Your task to perform on an android device: open app "DoorDash - Dasher" Image 0: 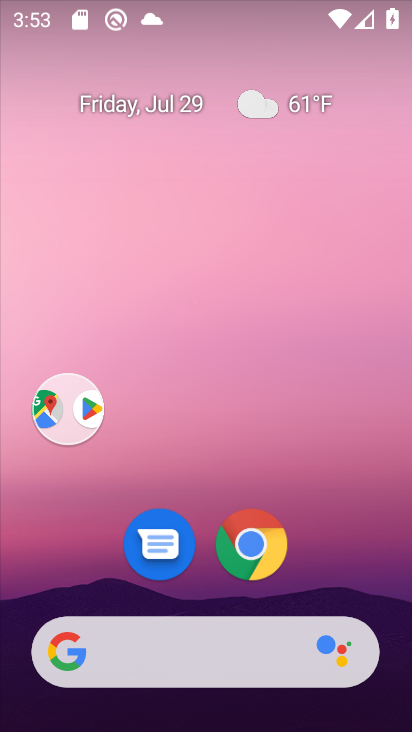
Step 0: drag from (211, 697) to (205, 331)
Your task to perform on an android device: open app "DoorDash - Dasher" Image 1: 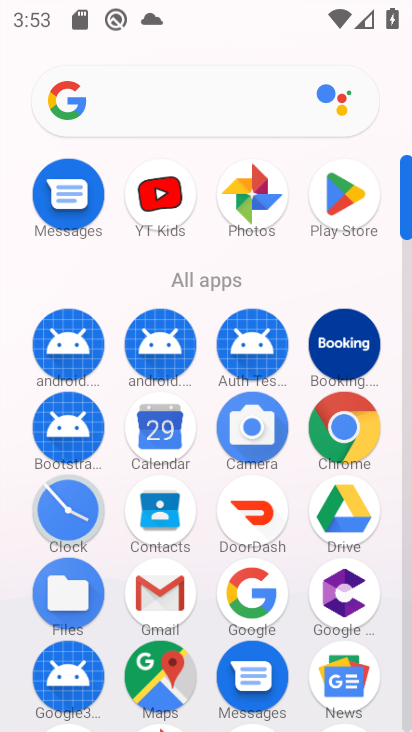
Step 1: task complete